Your task to perform on an android device: toggle pop-ups in chrome Image 0: 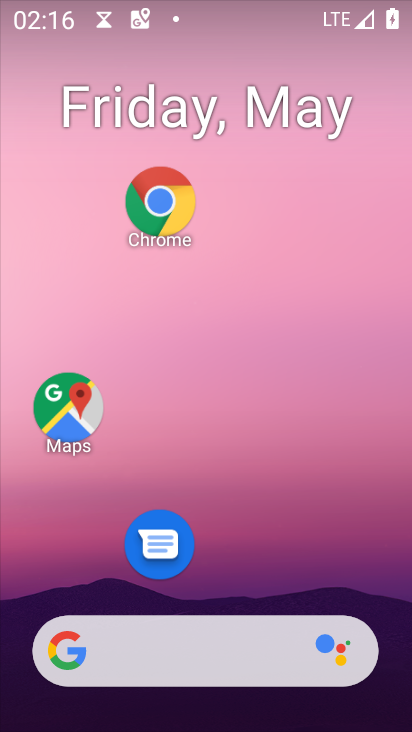
Step 0: drag from (291, 575) to (270, 256)
Your task to perform on an android device: toggle pop-ups in chrome Image 1: 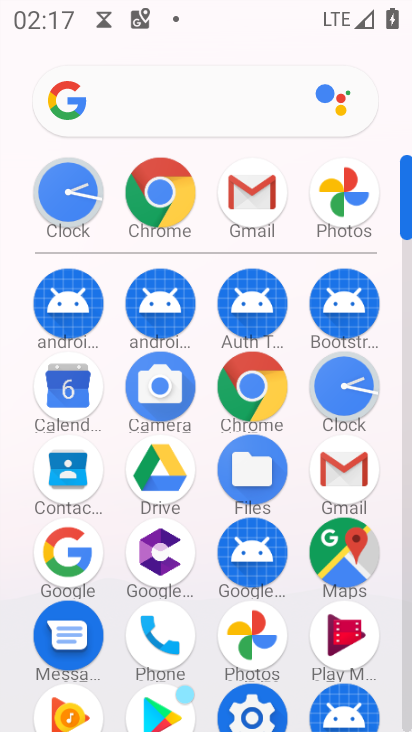
Step 1: click (272, 397)
Your task to perform on an android device: toggle pop-ups in chrome Image 2: 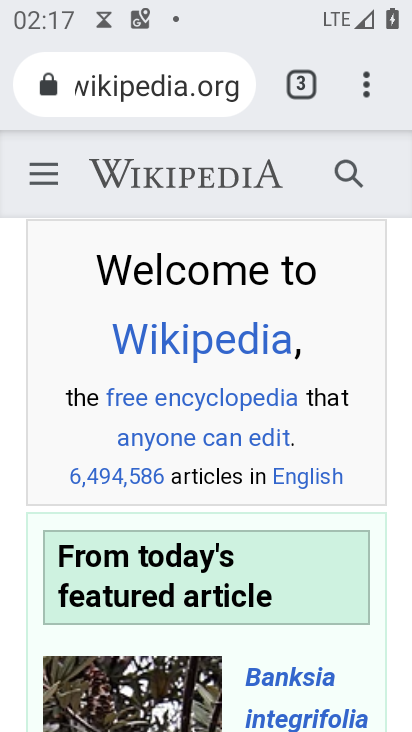
Step 2: click (364, 96)
Your task to perform on an android device: toggle pop-ups in chrome Image 3: 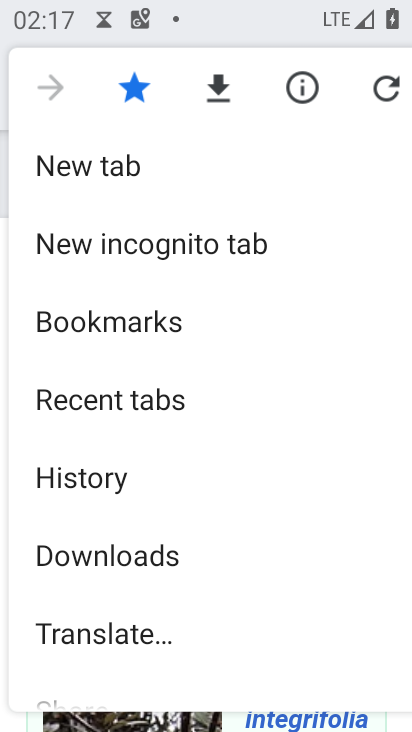
Step 3: drag from (166, 519) to (240, 214)
Your task to perform on an android device: toggle pop-ups in chrome Image 4: 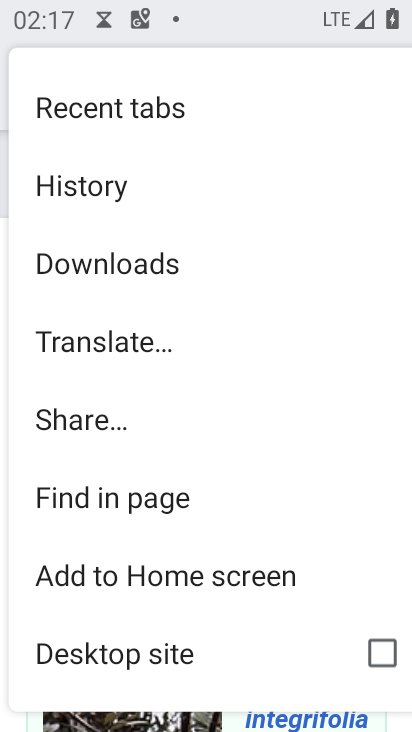
Step 4: drag from (160, 623) to (256, 257)
Your task to perform on an android device: toggle pop-ups in chrome Image 5: 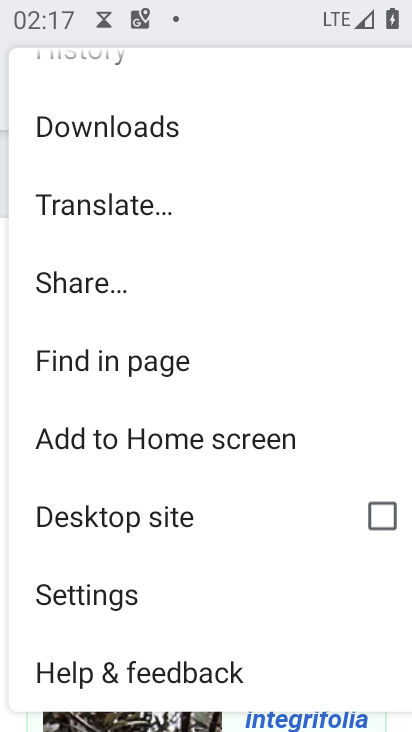
Step 5: click (142, 604)
Your task to perform on an android device: toggle pop-ups in chrome Image 6: 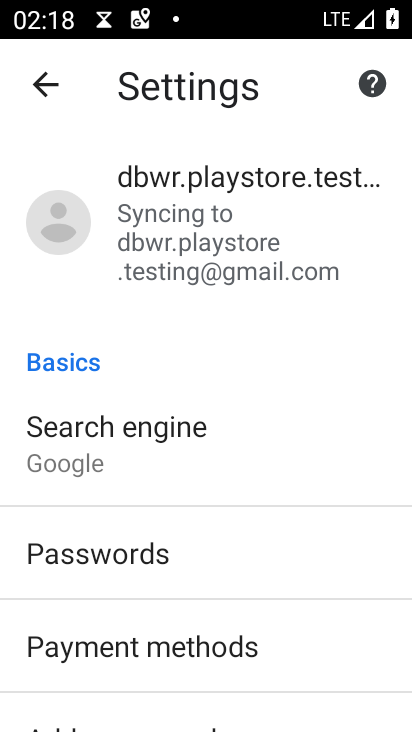
Step 6: drag from (190, 573) to (257, 293)
Your task to perform on an android device: toggle pop-ups in chrome Image 7: 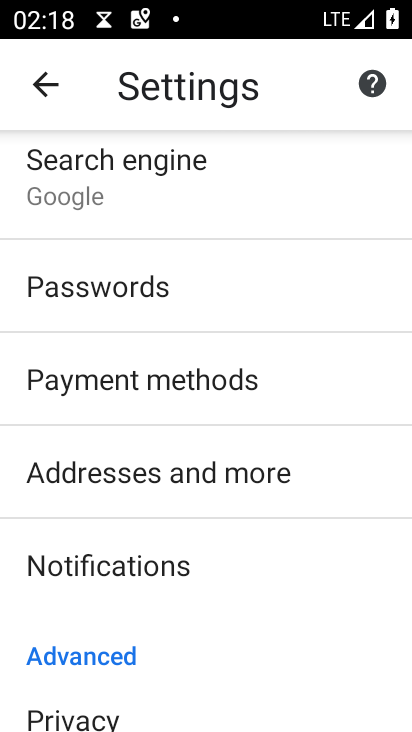
Step 7: drag from (176, 576) to (204, 218)
Your task to perform on an android device: toggle pop-ups in chrome Image 8: 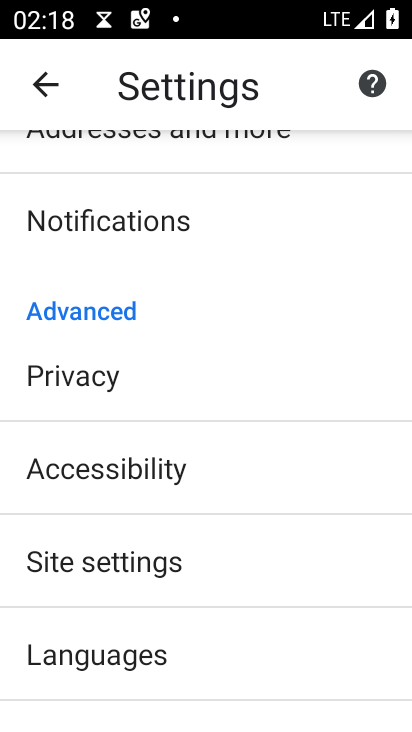
Step 8: click (148, 545)
Your task to perform on an android device: toggle pop-ups in chrome Image 9: 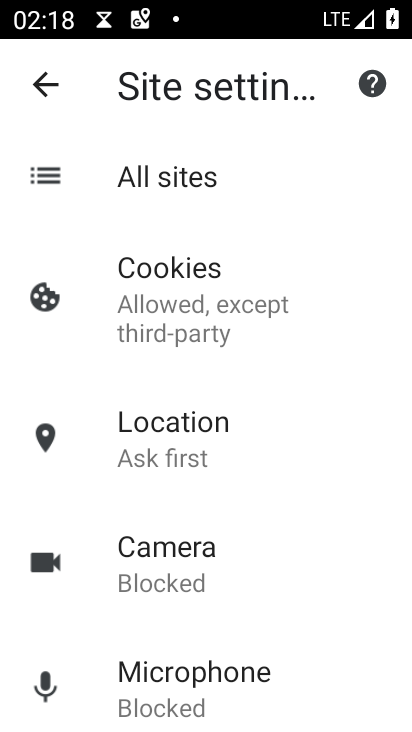
Step 9: drag from (216, 562) to (274, 250)
Your task to perform on an android device: toggle pop-ups in chrome Image 10: 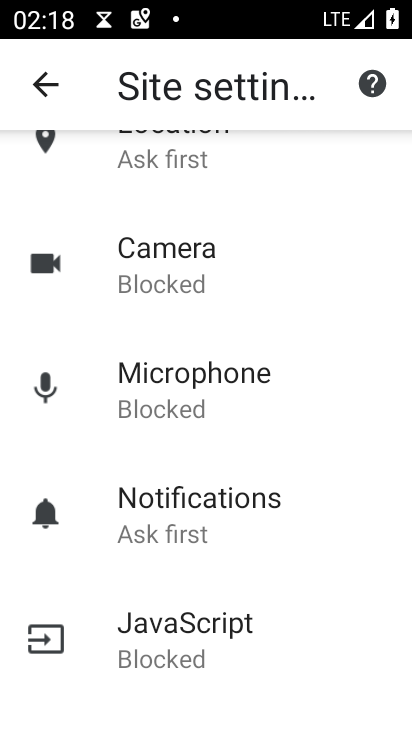
Step 10: drag from (229, 358) to (195, 240)
Your task to perform on an android device: toggle pop-ups in chrome Image 11: 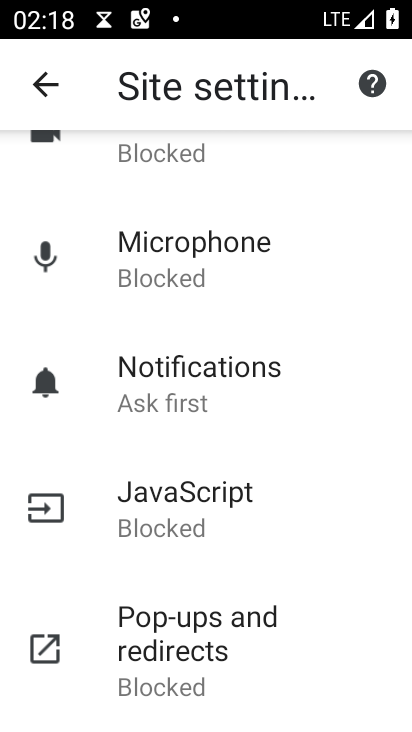
Step 11: click (212, 623)
Your task to perform on an android device: toggle pop-ups in chrome Image 12: 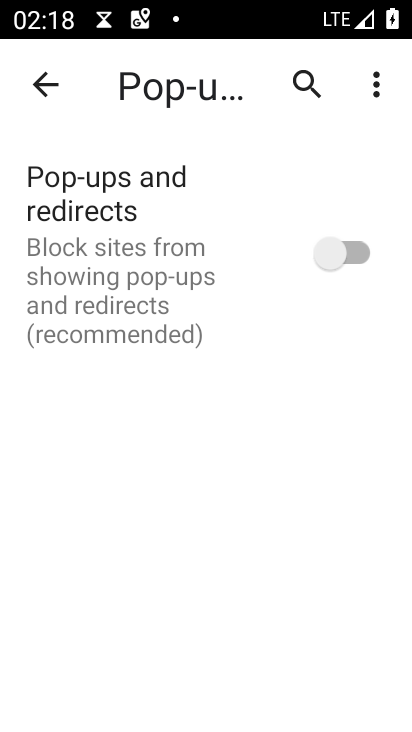
Step 12: click (312, 265)
Your task to perform on an android device: toggle pop-ups in chrome Image 13: 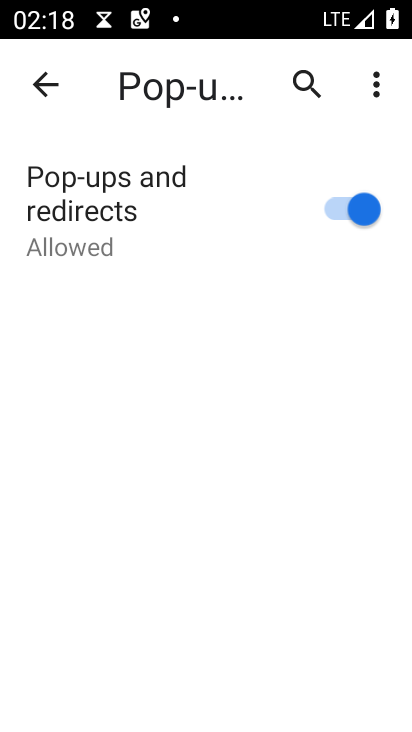
Step 13: task complete